Your task to perform on an android device: Open Chrome and go to settings Image 0: 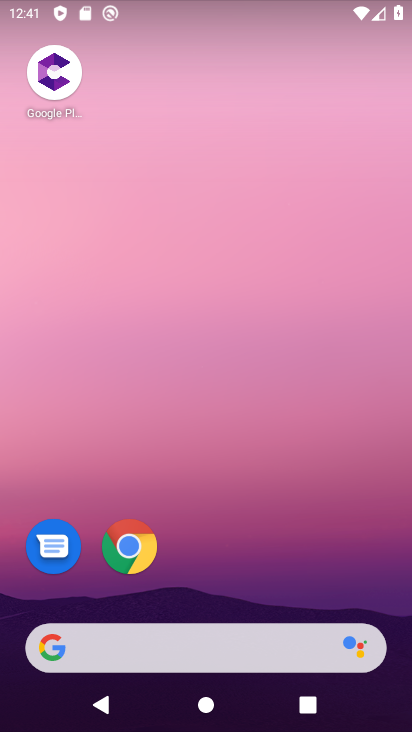
Step 0: click (127, 547)
Your task to perform on an android device: Open Chrome and go to settings Image 1: 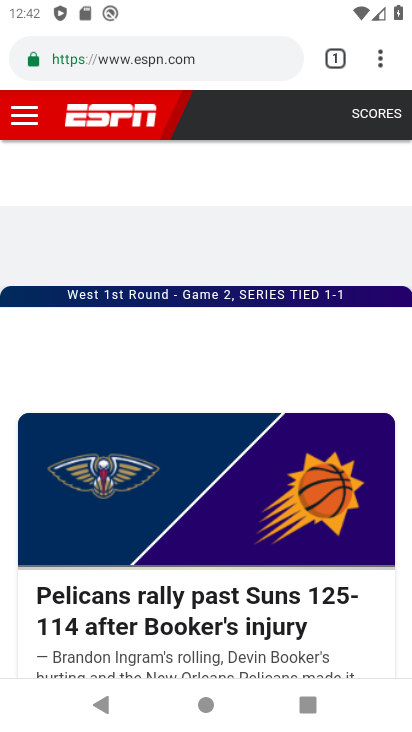
Step 1: click (381, 68)
Your task to perform on an android device: Open Chrome and go to settings Image 2: 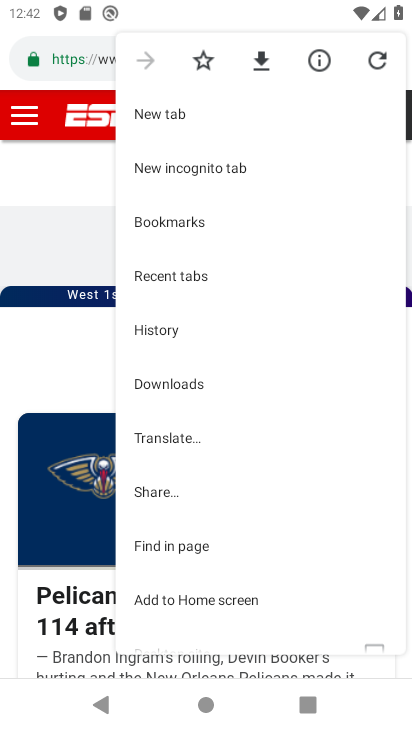
Step 2: drag from (205, 583) to (189, 265)
Your task to perform on an android device: Open Chrome and go to settings Image 3: 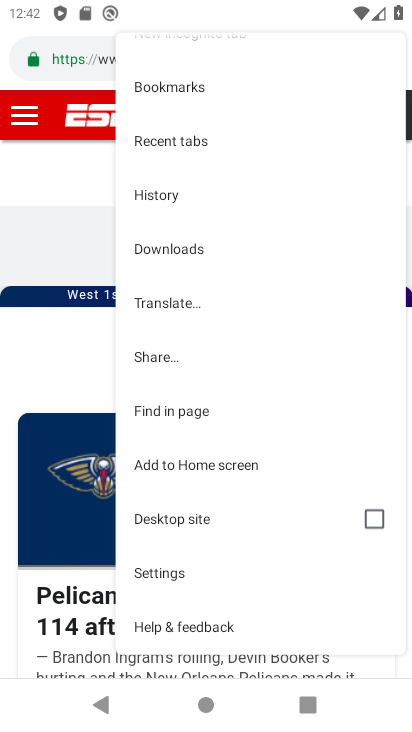
Step 3: click (167, 567)
Your task to perform on an android device: Open Chrome and go to settings Image 4: 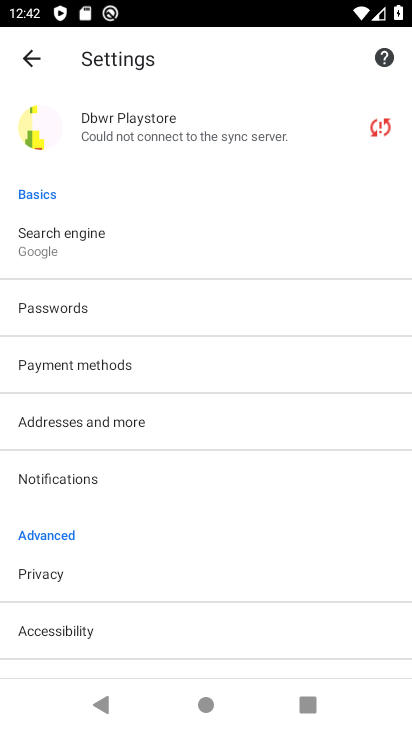
Step 4: task complete